Your task to perform on an android device: turn vacation reply on in the gmail app Image 0: 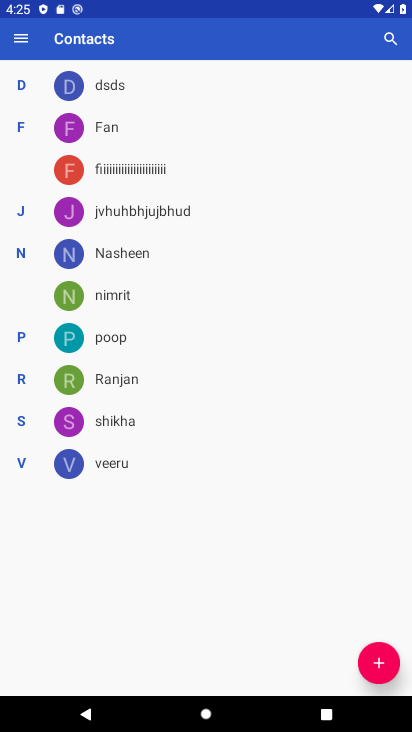
Step 0: press home button
Your task to perform on an android device: turn vacation reply on in the gmail app Image 1: 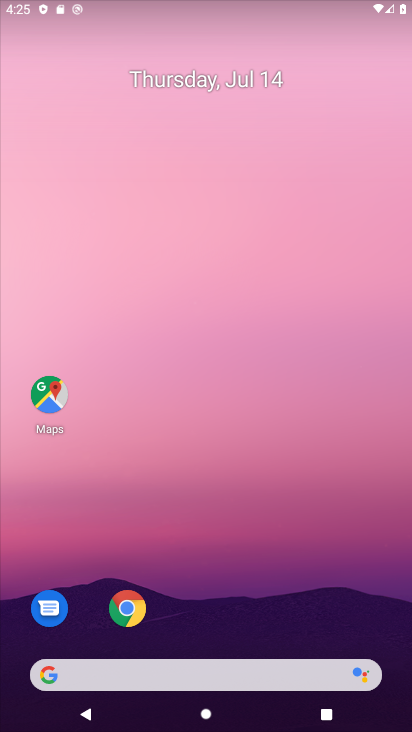
Step 1: drag from (237, 610) to (263, 176)
Your task to perform on an android device: turn vacation reply on in the gmail app Image 2: 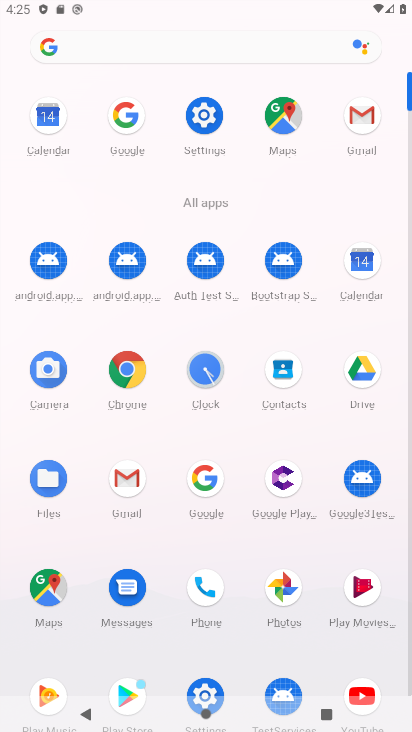
Step 2: click (363, 141)
Your task to perform on an android device: turn vacation reply on in the gmail app Image 3: 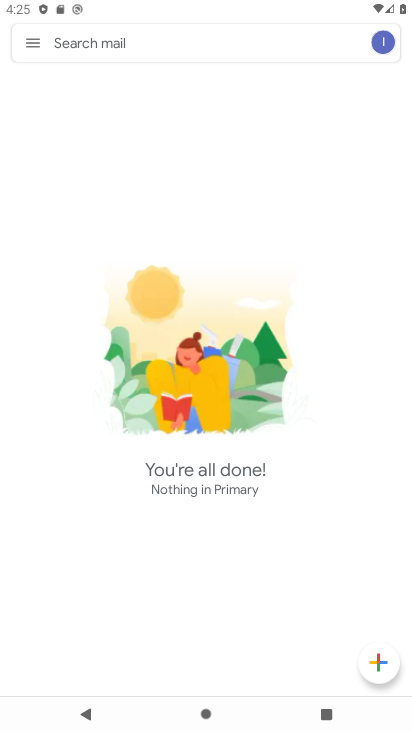
Step 3: click (38, 57)
Your task to perform on an android device: turn vacation reply on in the gmail app Image 4: 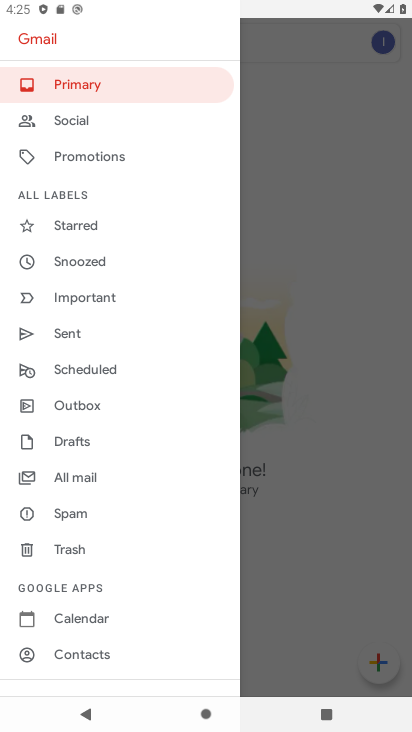
Step 4: drag from (110, 557) to (137, 298)
Your task to perform on an android device: turn vacation reply on in the gmail app Image 5: 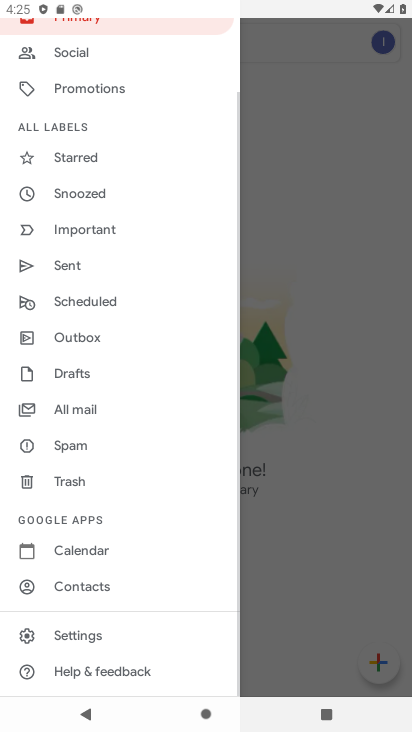
Step 5: click (88, 637)
Your task to perform on an android device: turn vacation reply on in the gmail app Image 6: 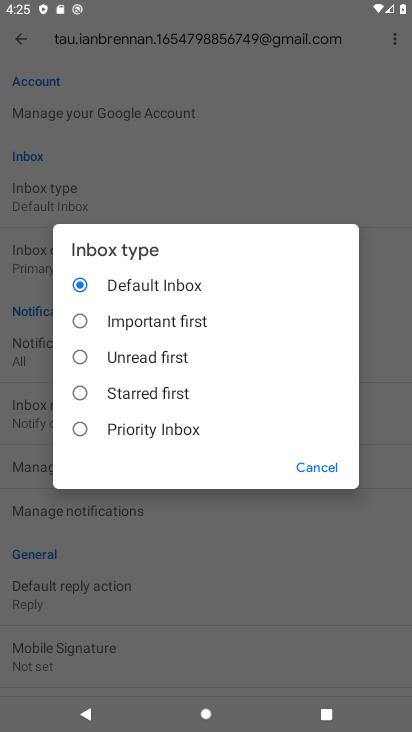
Step 6: click (313, 460)
Your task to perform on an android device: turn vacation reply on in the gmail app Image 7: 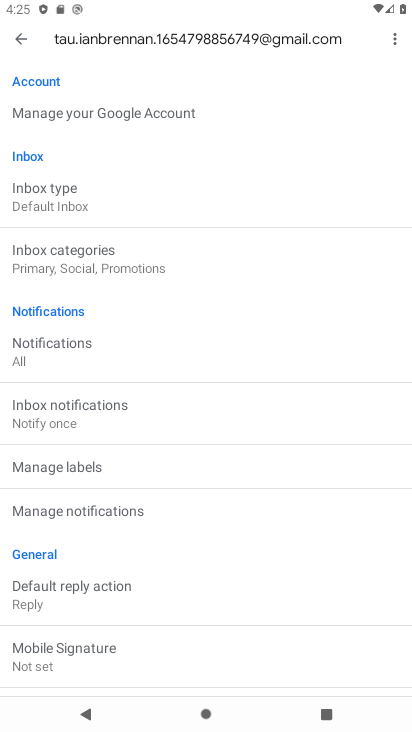
Step 7: drag from (186, 566) to (217, 344)
Your task to perform on an android device: turn vacation reply on in the gmail app Image 8: 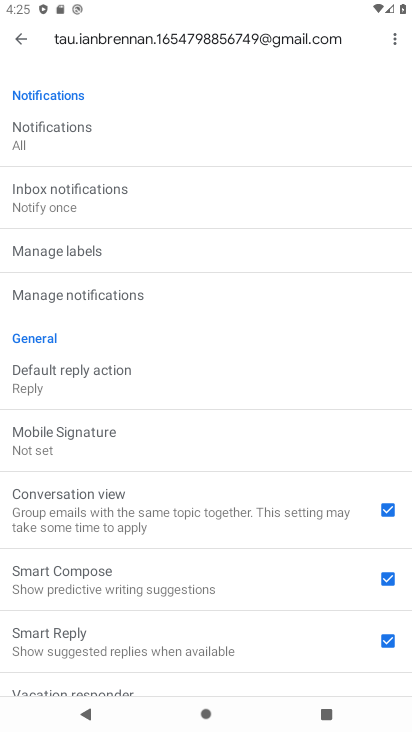
Step 8: drag from (183, 588) to (218, 287)
Your task to perform on an android device: turn vacation reply on in the gmail app Image 9: 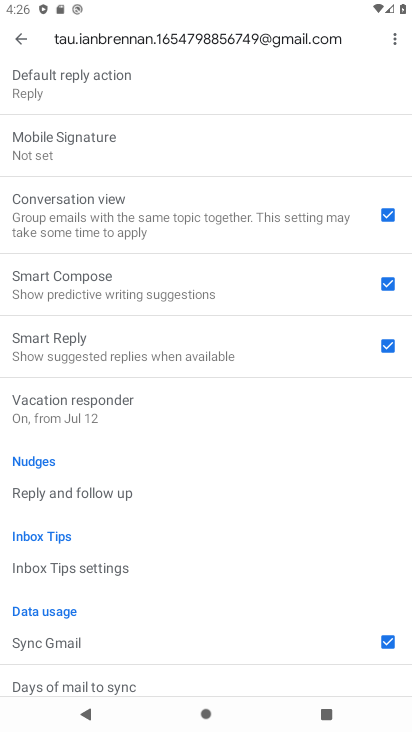
Step 9: click (119, 412)
Your task to perform on an android device: turn vacation reply on in the gmail app Image 10: 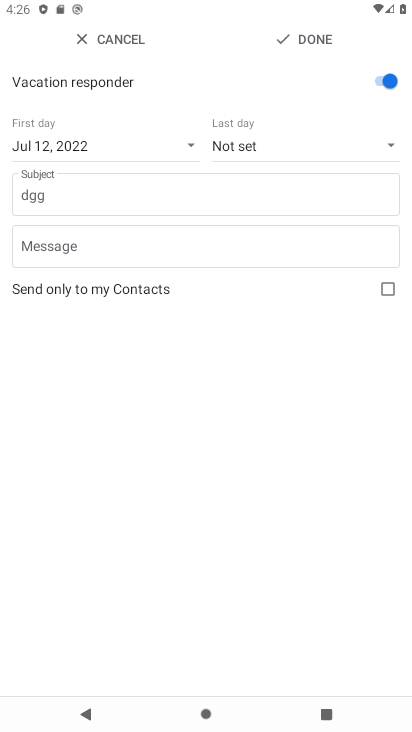
Step 10: task complete